Your task to perform on an android device: install app "Google Chat" Image 0: 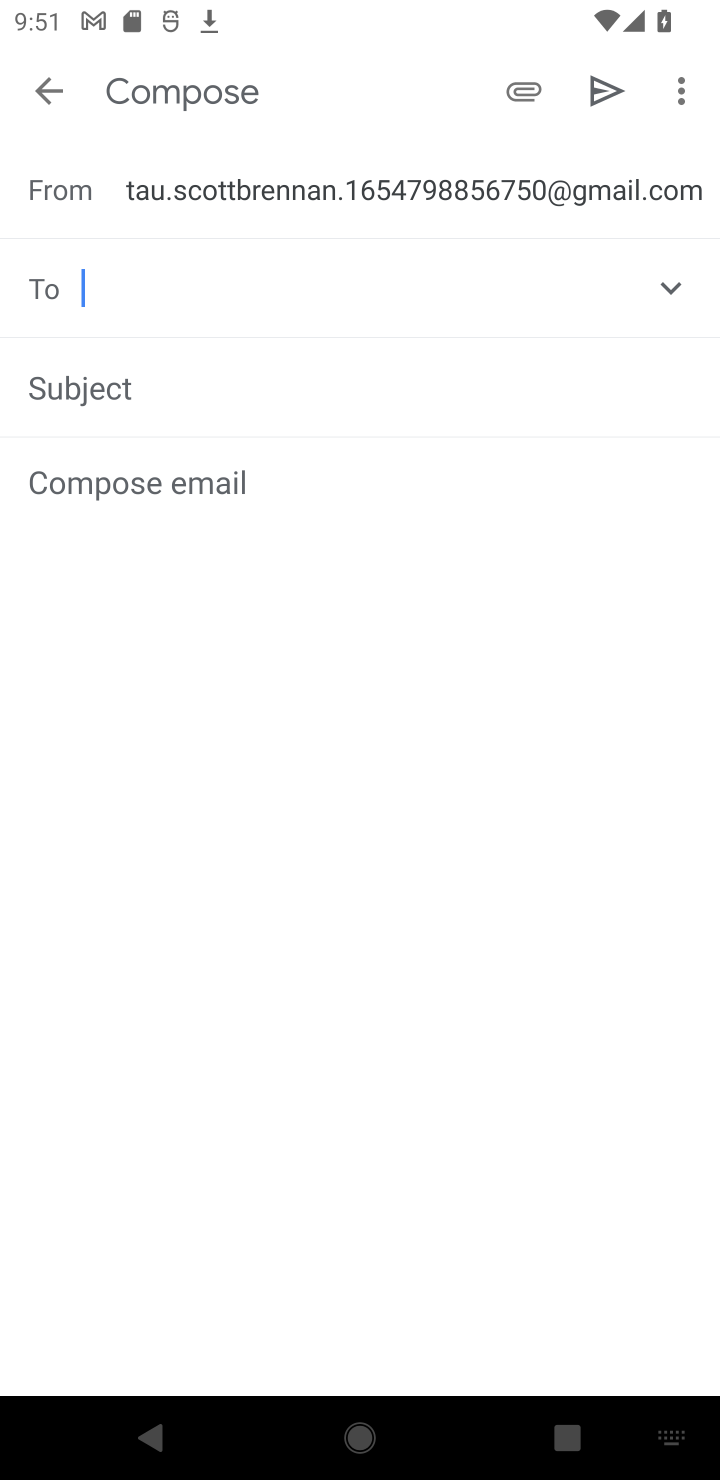
Step 0: press home button
Your task to perform on an android device: install app "Google Chat" Image 1: 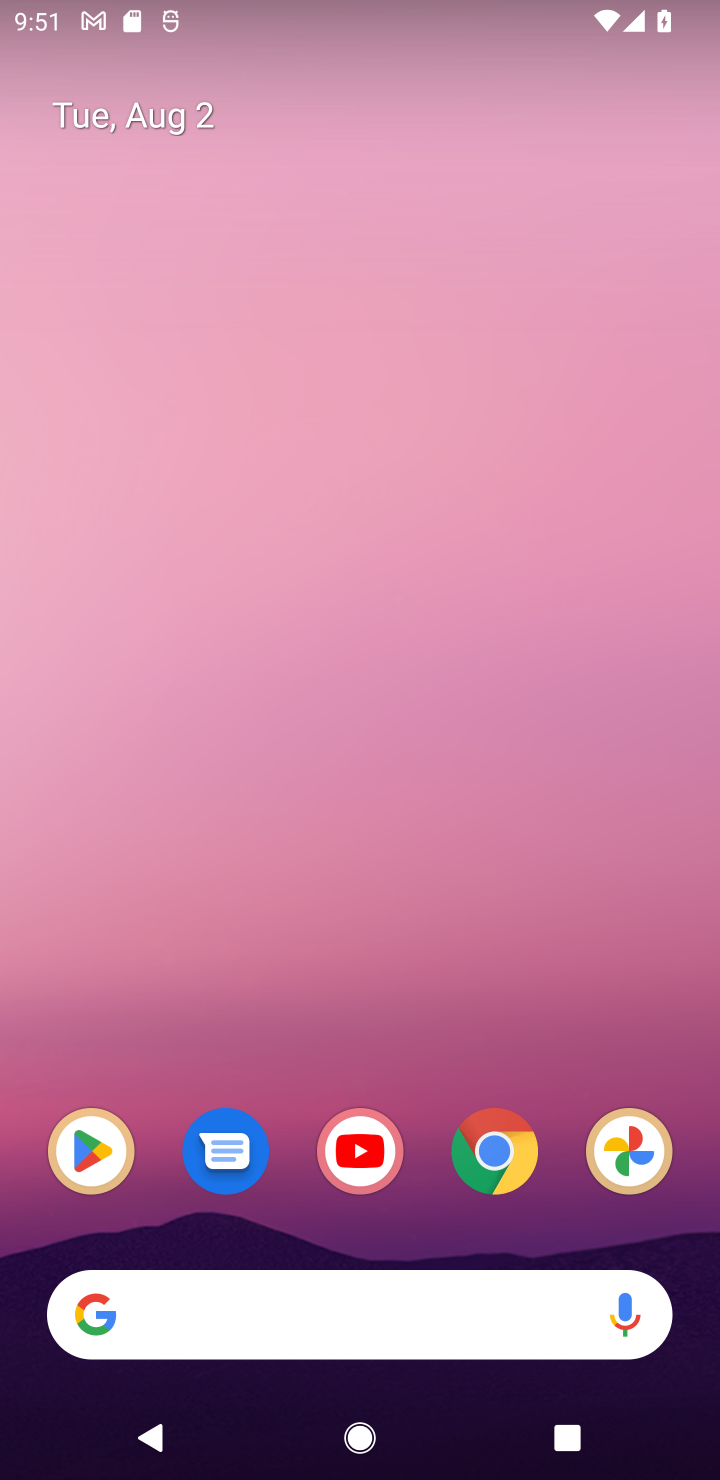
Step 1: drag from (372, 1034) to (182, 21)
Your task to perform on an android device: install app "Google Chat" Image 2: 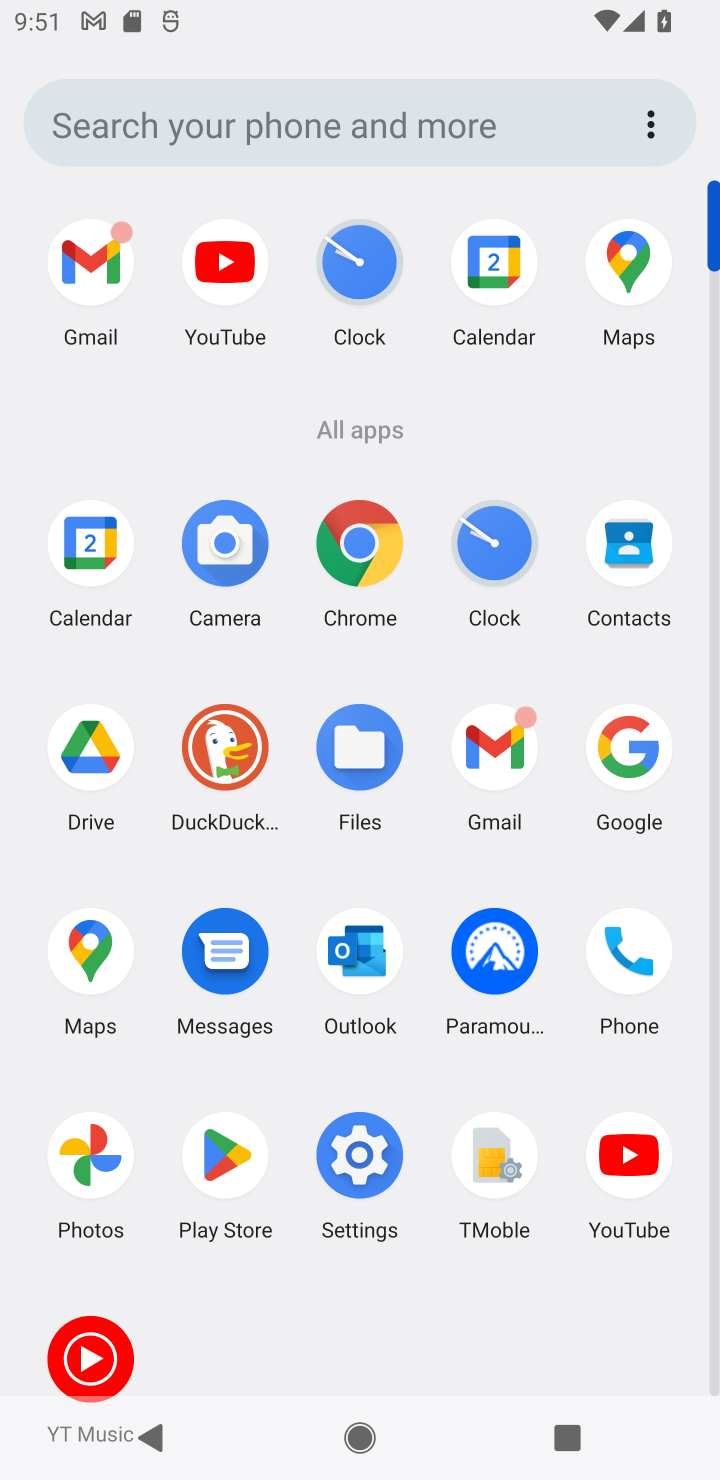
Step 2: click (233, 1165)
Your task to perform on an android device: install app "Google Chat" Image 3: 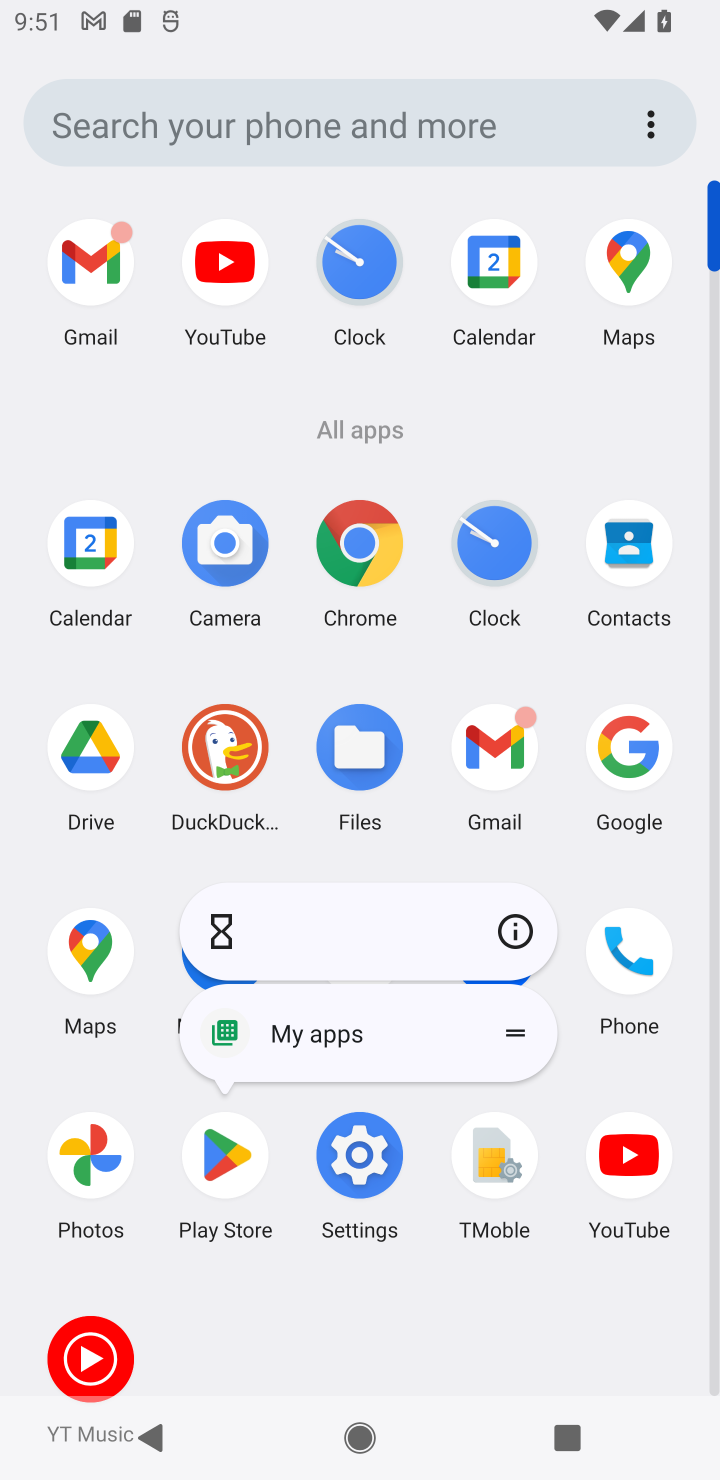
Step 3: click (231, 1160)
Your task to perform on an android device: install app "Google Chat" Image 4: 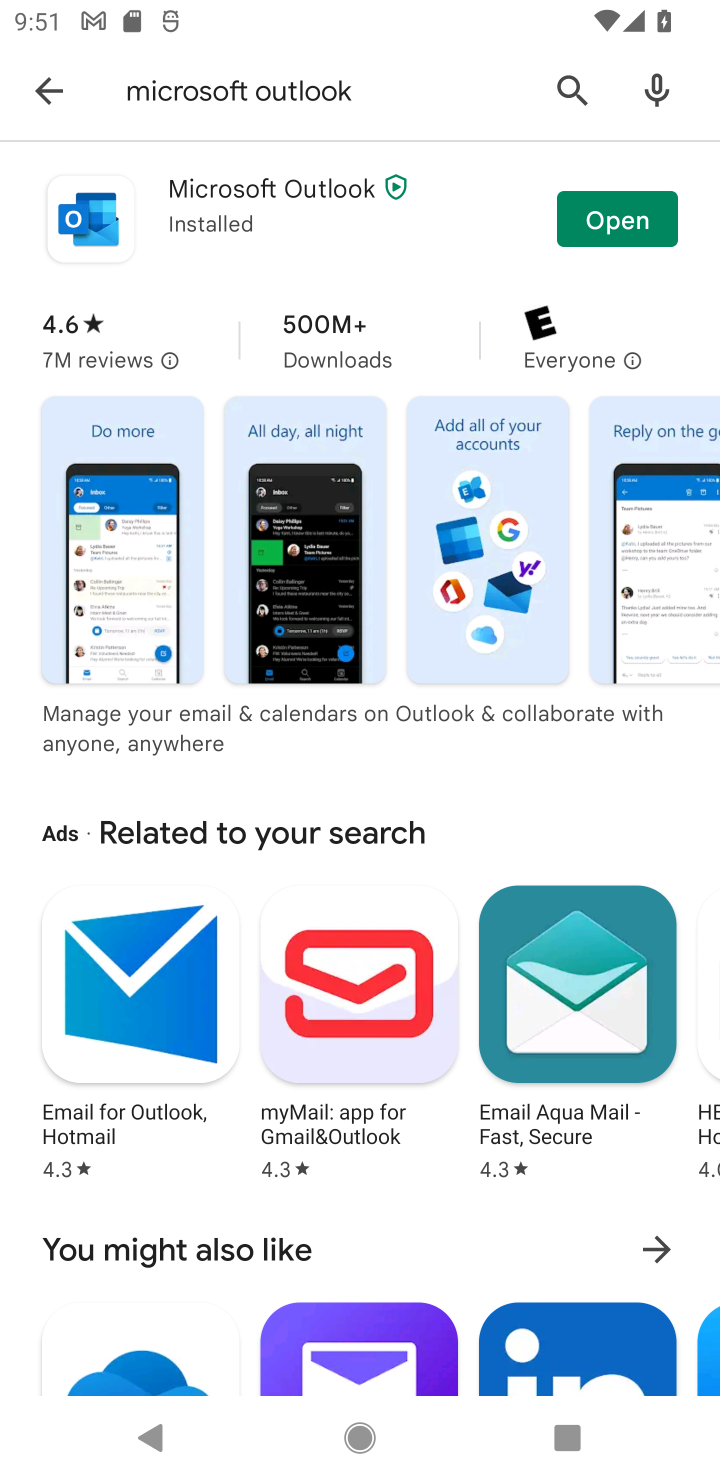
Step 4: click (55, 91)
Your task to perform on an android device: install app "Google Chat" Image 5: 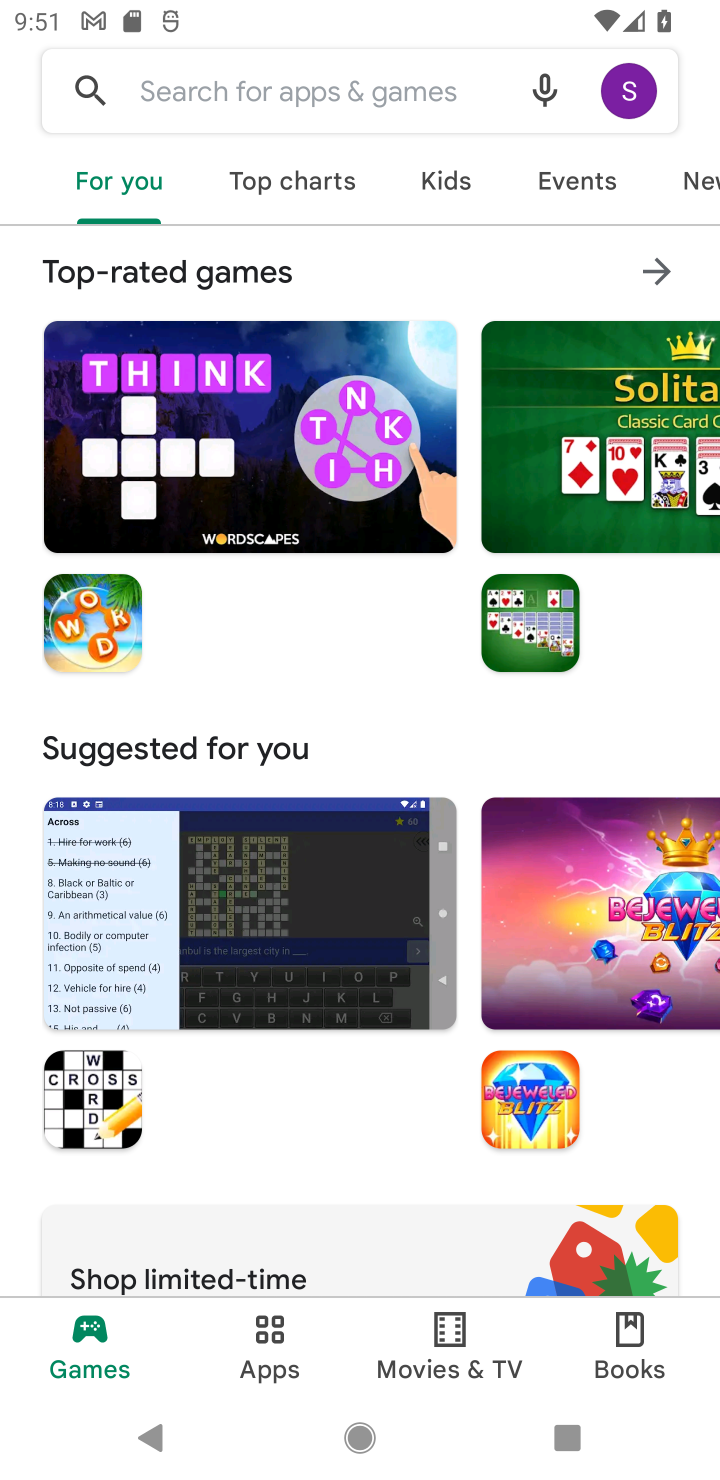
Step 5: click (149, 95)
Your task to perform on an android device: install app "Google Chat" Image 6: 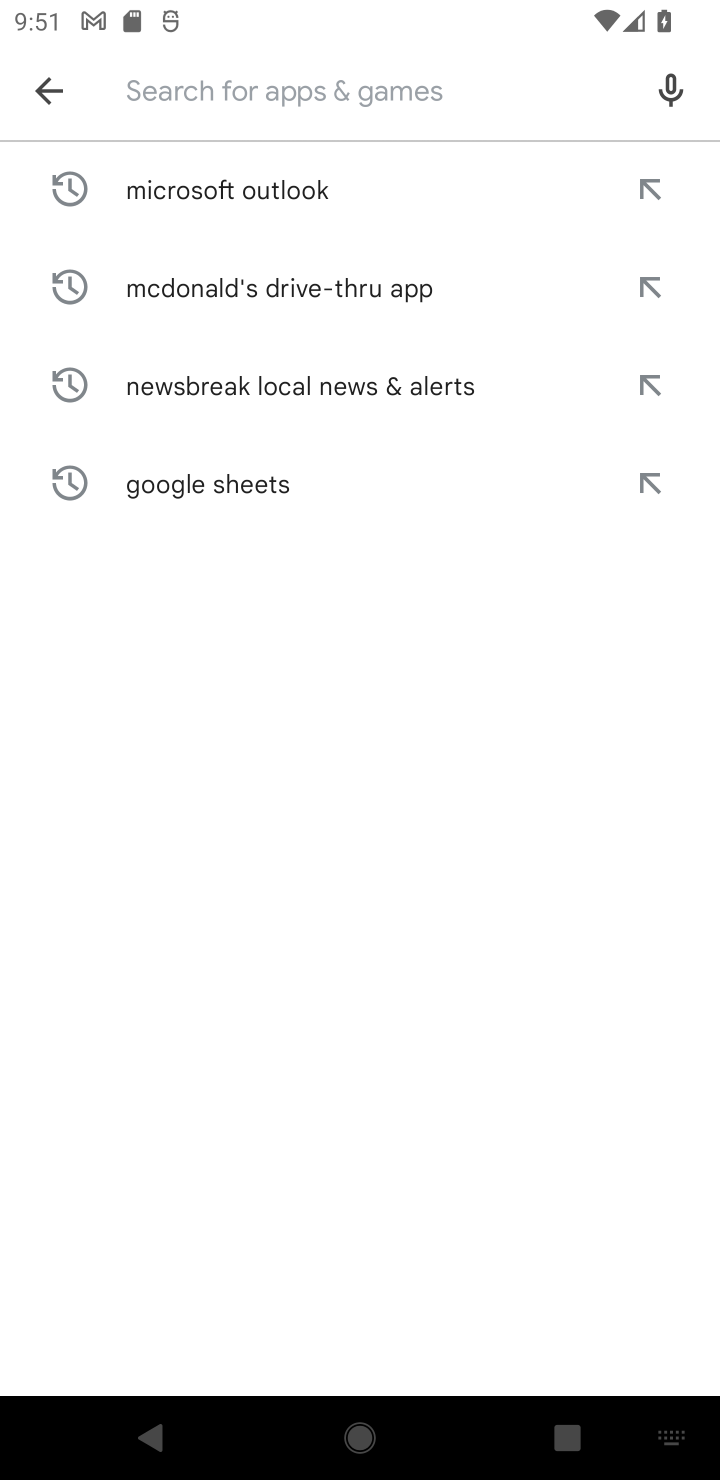
Step 6: type "Google Chat"
Your task to perform on an android device: install app "Google Chat" Image 7: 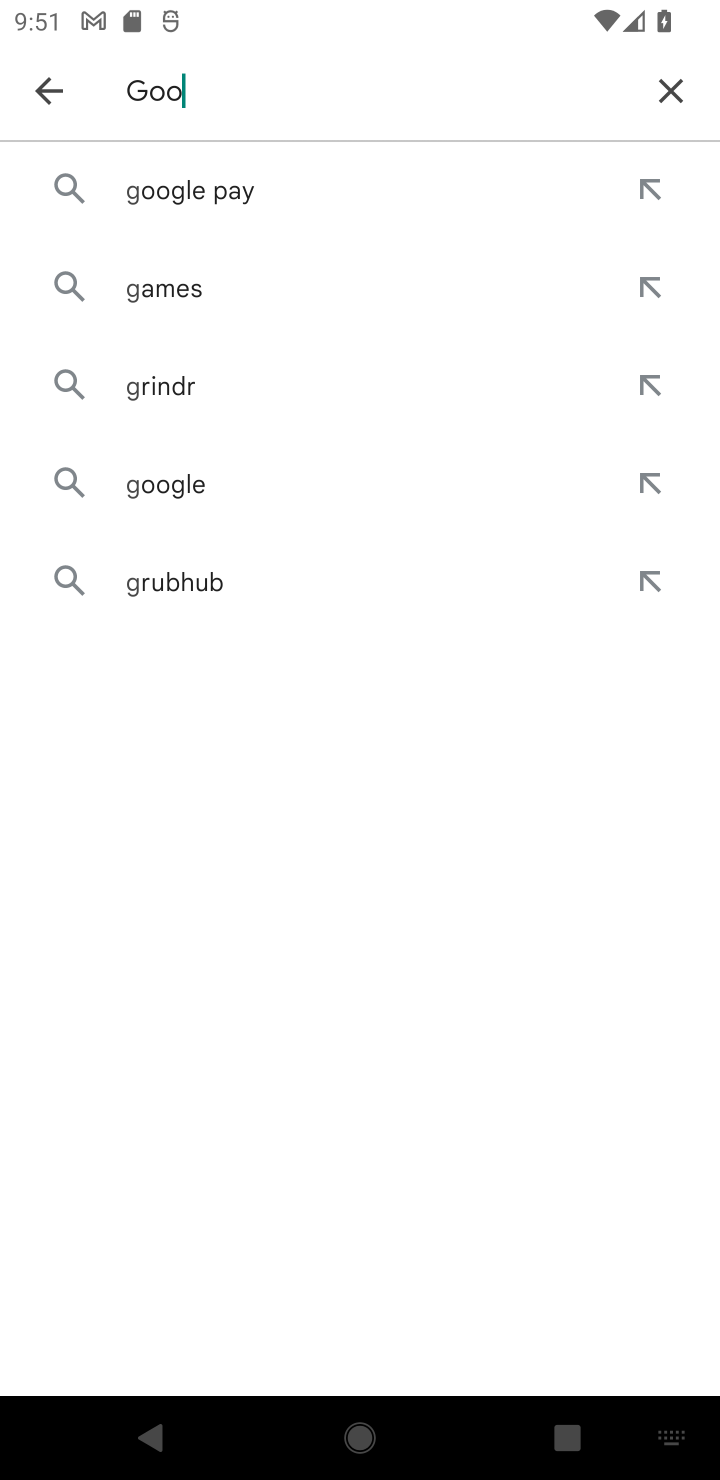
Step 7: type ""
Your task to perform on an android device: install app "Google Chat" Image 8: 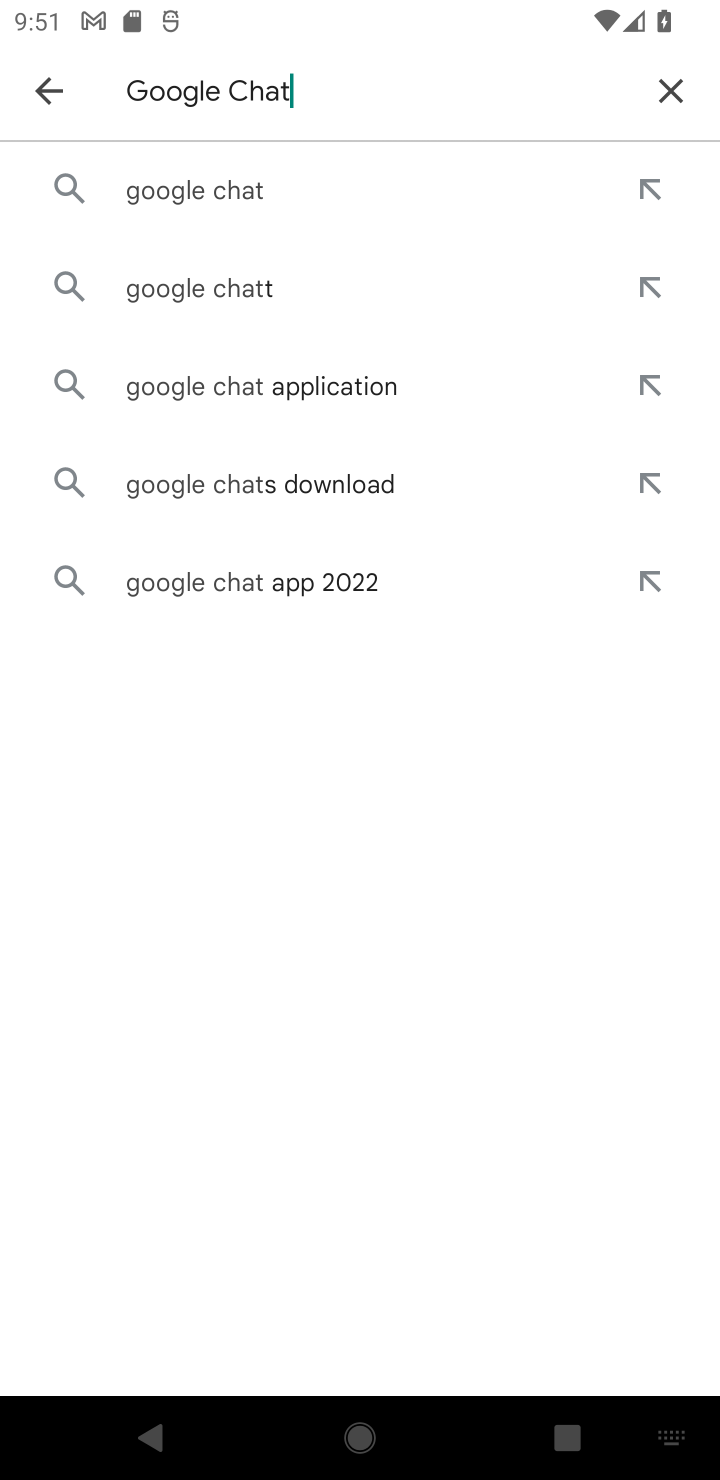
Step 8: click (227, 212)
Your task to perform on an android device: install app "Google Chat" Image 9: 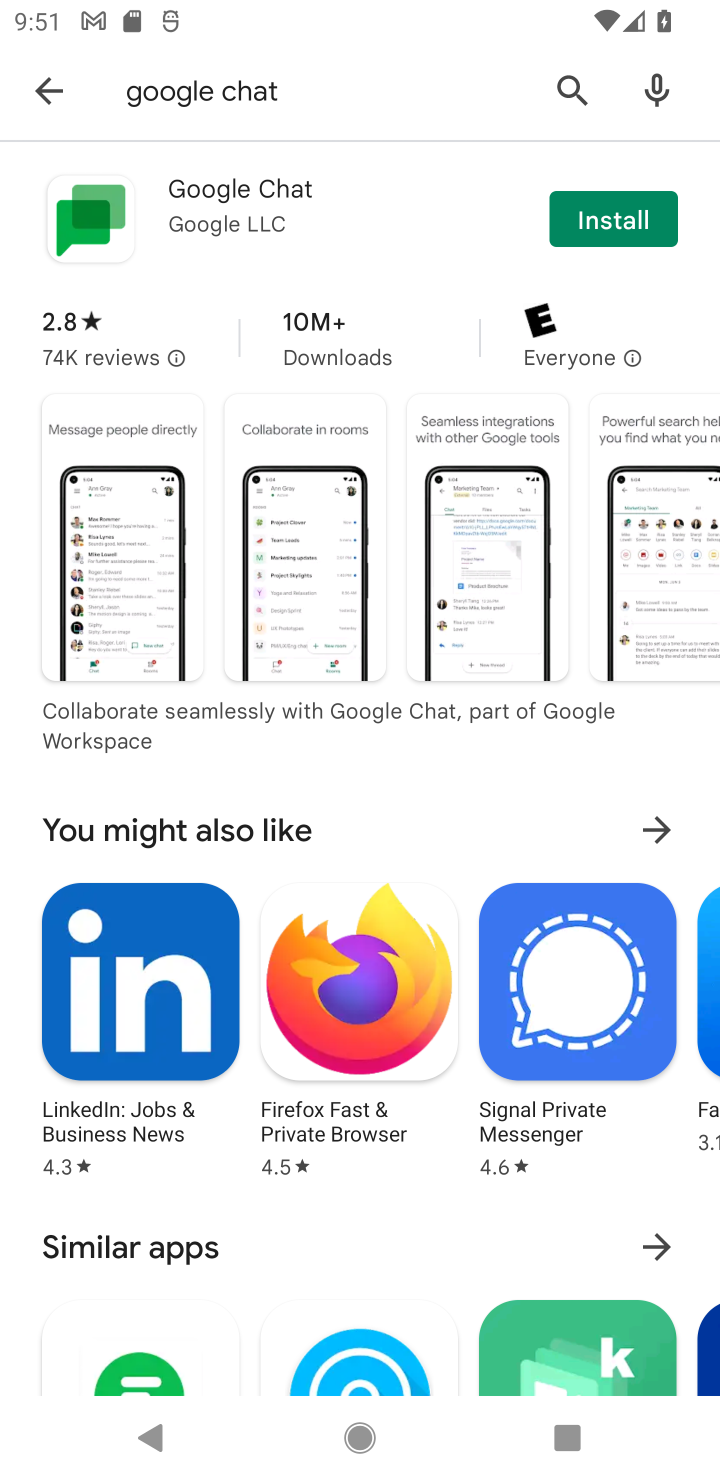
Step 9: click (535, 227)
Your task to perform on an android device: install app "Google Chat" Image 10: 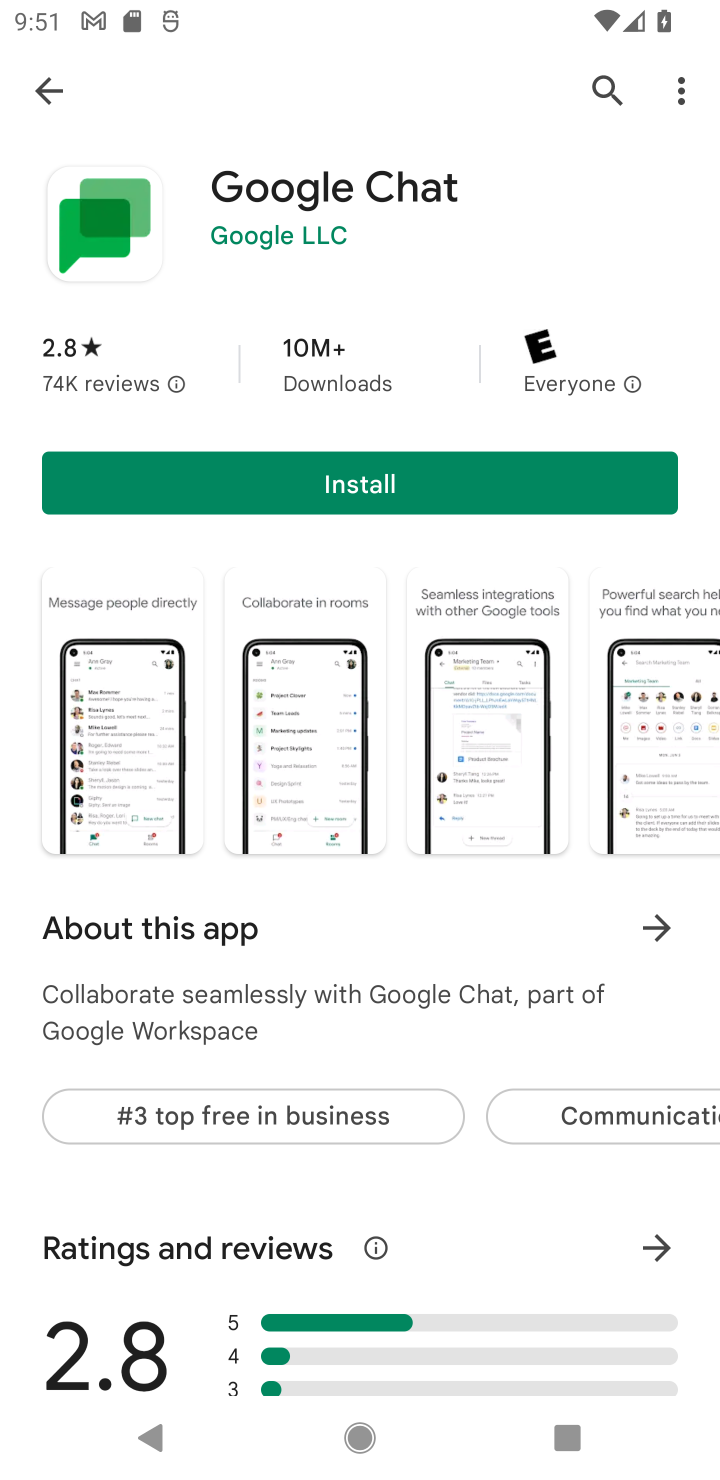
Step 10: click (398, 479)
Your task to perform on an android device: install app "Google Chat" Image 11: 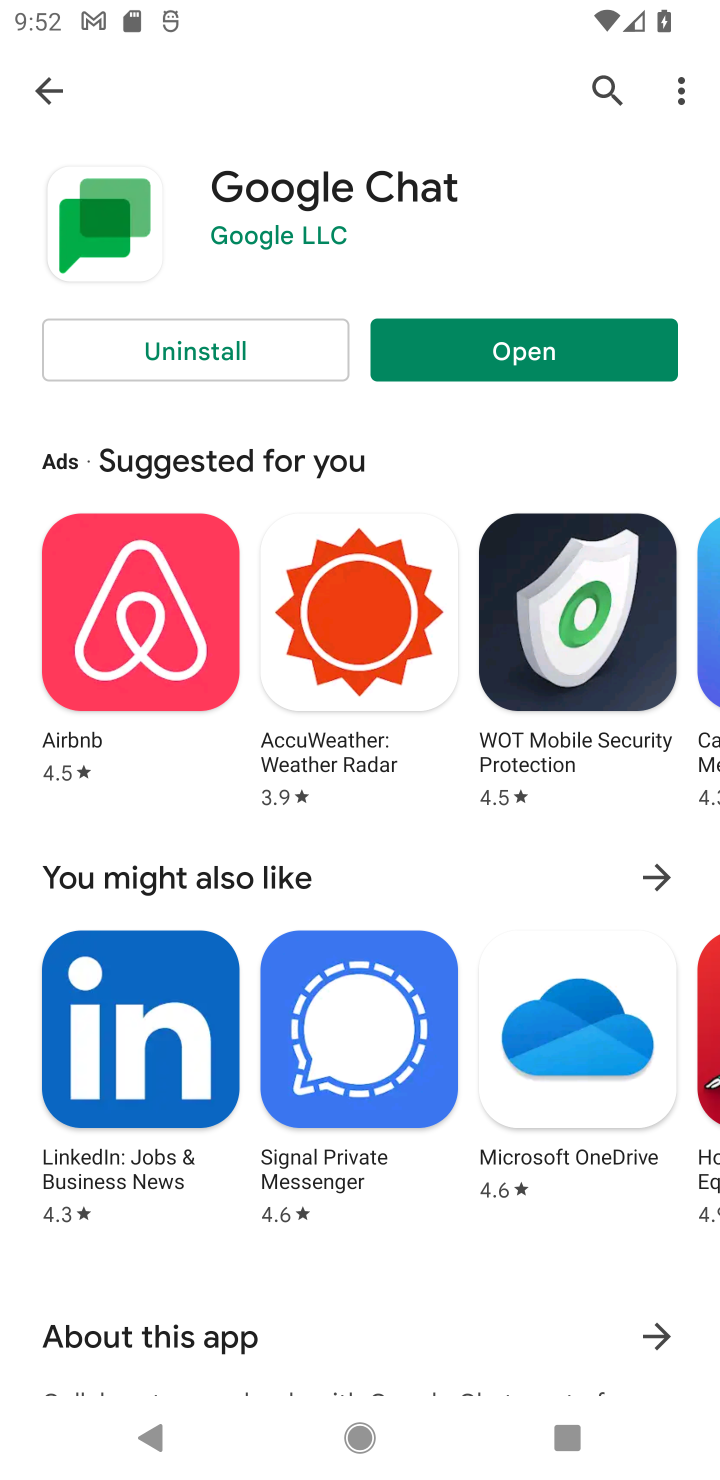
Step 11: click (449, 355)
Your task to perform on an android device: install app "Google Chat" Image 12: 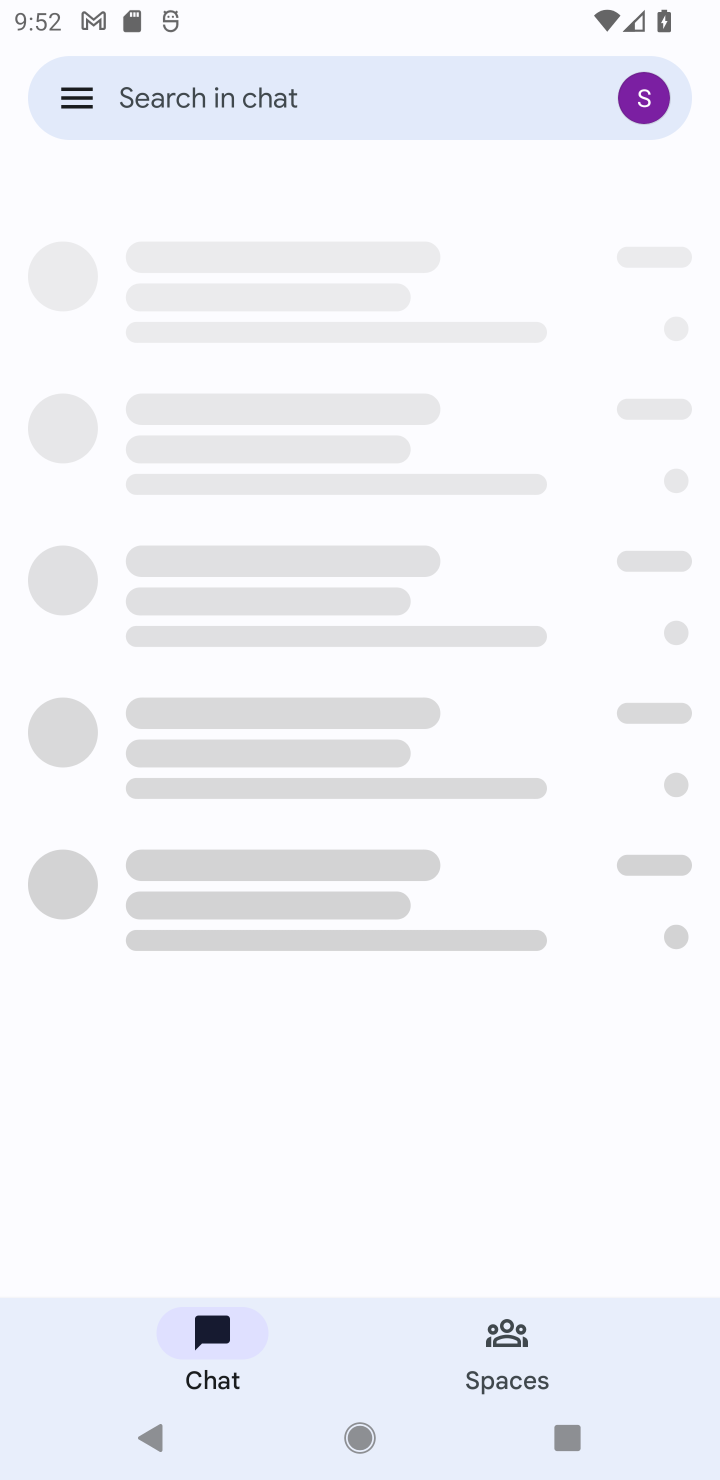
Step 12: press home button
Your task to perform on an android device: install app "Google Chat" Image 13: 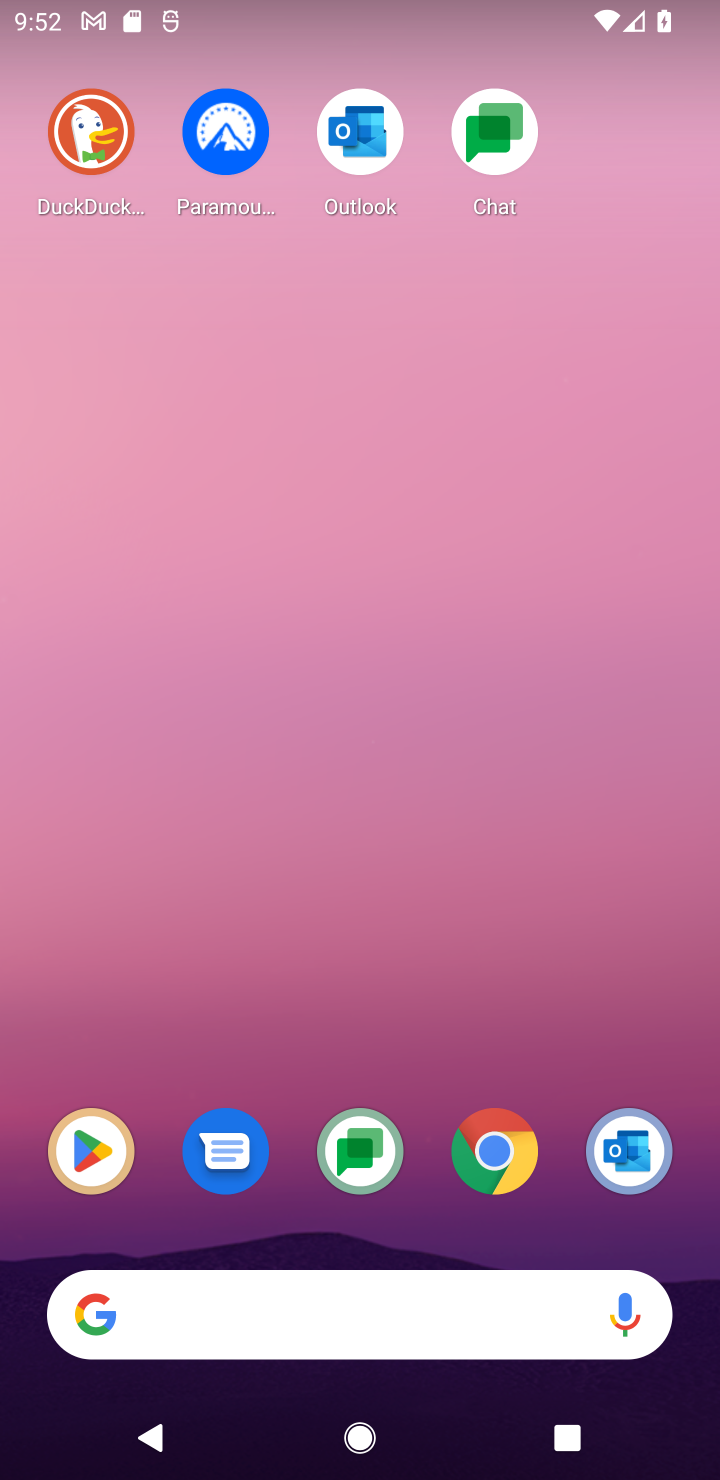
Step 13: drag from (369, 1258) to (377, 55)
Your task to perform on an android device: install app "Google Chat" Image 14: 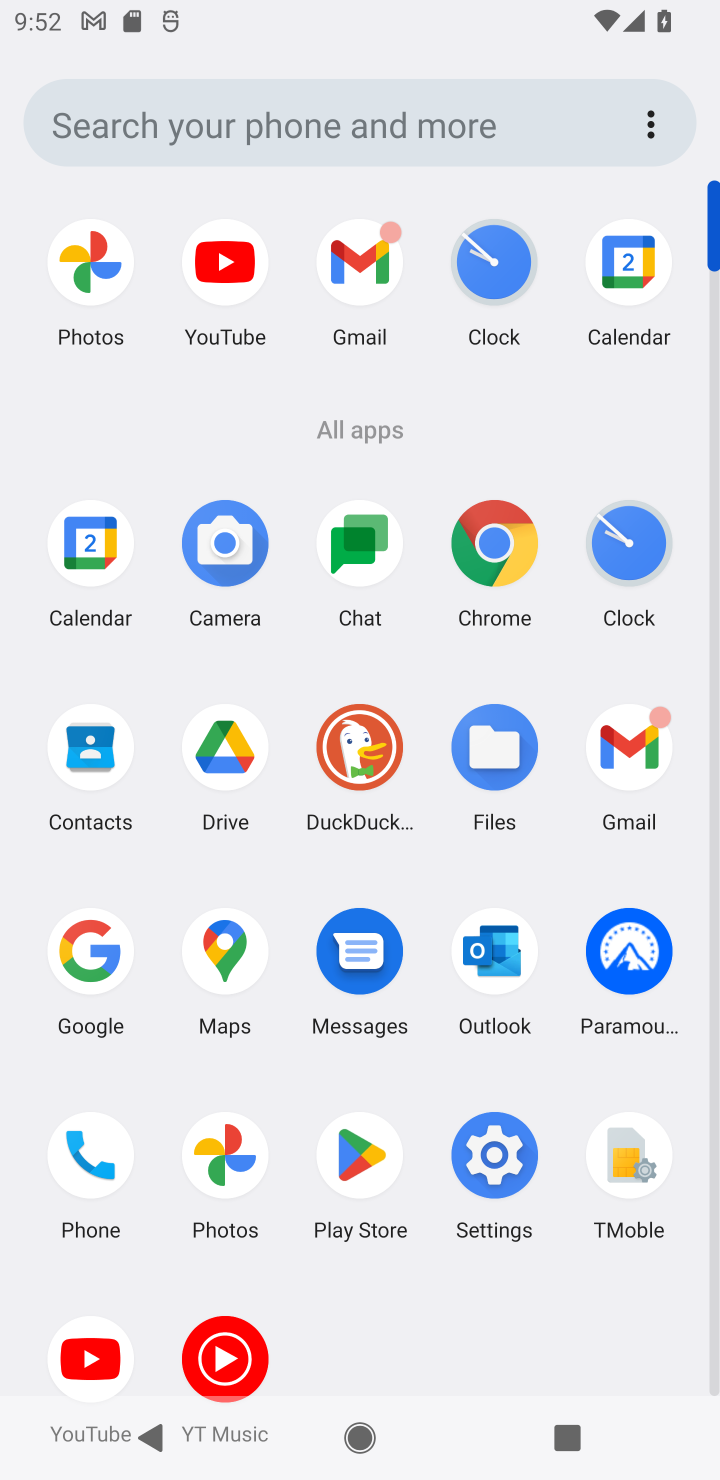
Step 14: click (377, 1150)
Your task to perform on an android device: install app "Google Chat" Image 15: 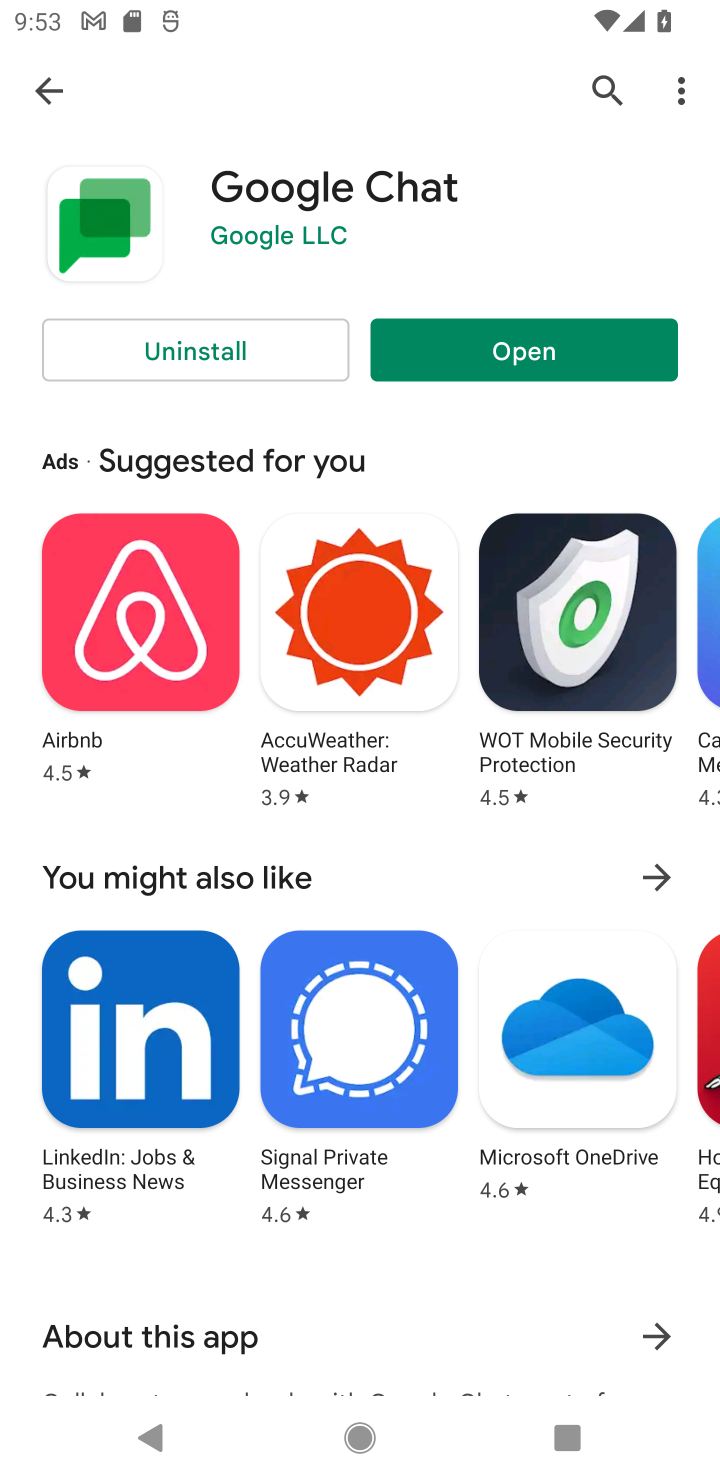
Step 15: click (567, 356)
Your task to perform on an android device: install app "Google Chat" Image 16: 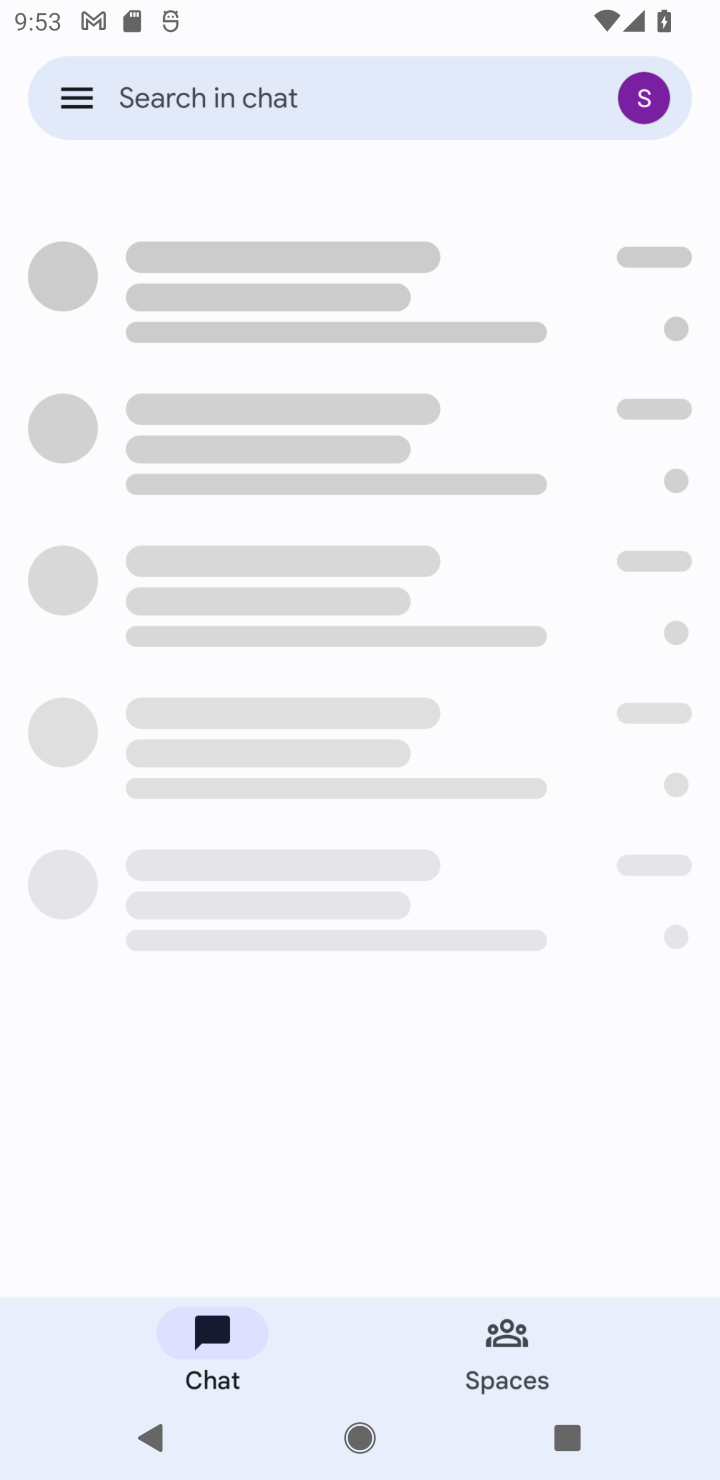
Step 16: task complete